Your task to perform on an android device: What's the latest video from GameSpot Trailers? Image 0: 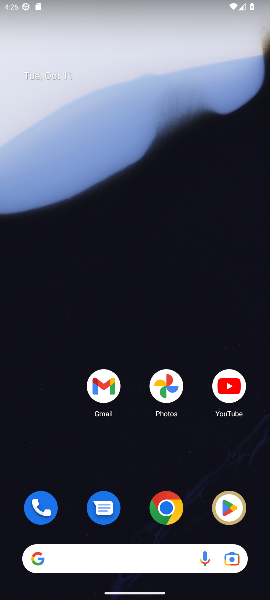
Step 0: click (40, 557)
Your task to perform on an android device: What's the latest video from GameSpot Trailers? Image 1: 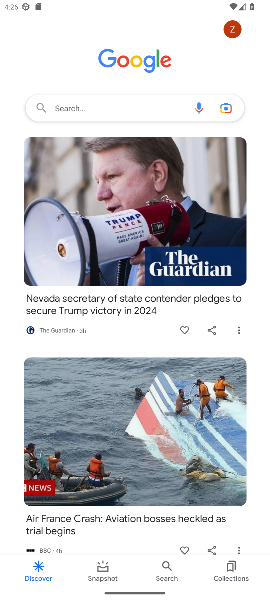
Step 1: click (96, 105)
Your task to perform on an android device: What's the latest video from GameSpot Trailers? Image 2: 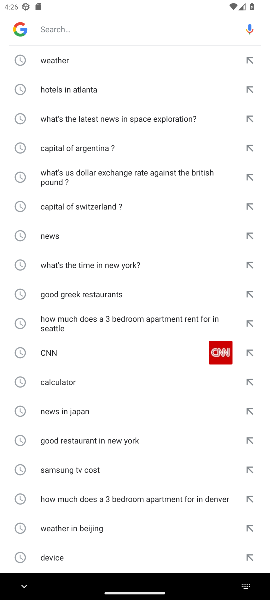
Step 2: type "latest video from gamespot trailers?"
Your task to perform on an android device: What's the latest video from GameSpot Trailers? Image 3: 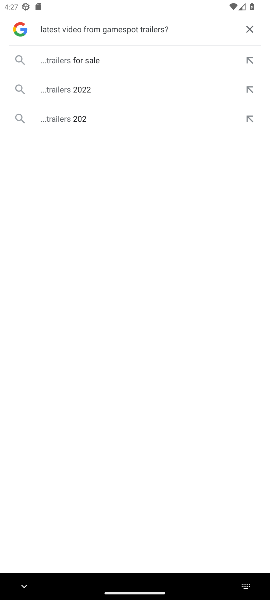
Step 3: task complete